Your task to perform on an android device: Open Android settings Image 0: 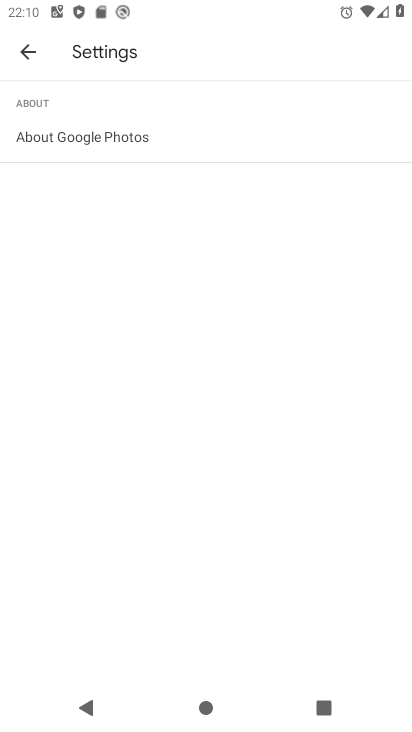
Step 0: press home button
Your task to perform on an android device: Open Android settings Image 1: 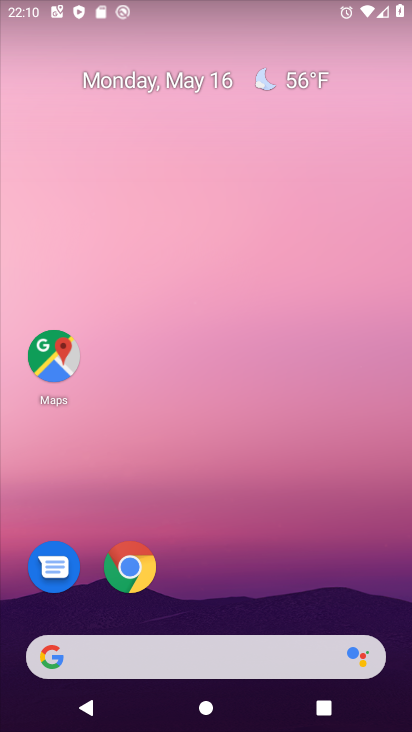
Step 1: drag from (257, 593) to (296, 186)
Your task to perform on an android device: Open Android settings Image 2: 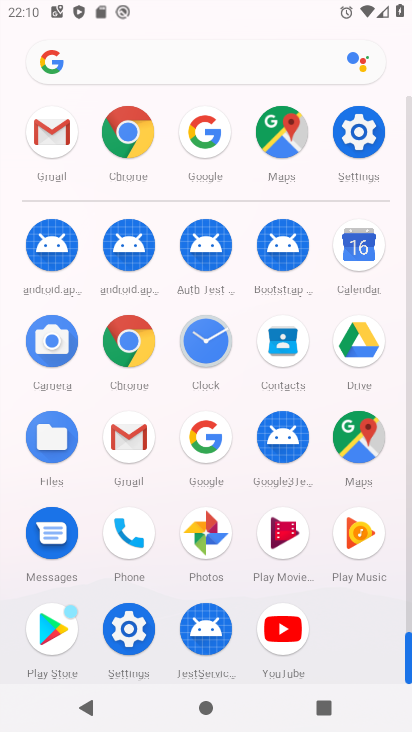
Step 2: click (361, 118)
Your task to perform on an android device: Open Android settings Image 3: 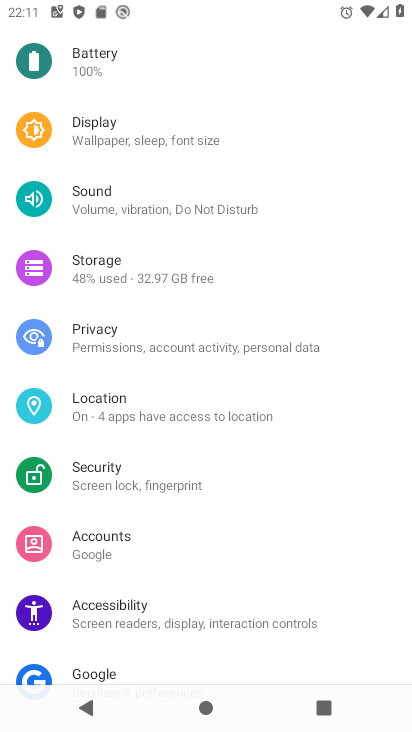
Step 3: task complete